Your task to perform on an android device: toggle priority inbox in the gmail app Image 0: 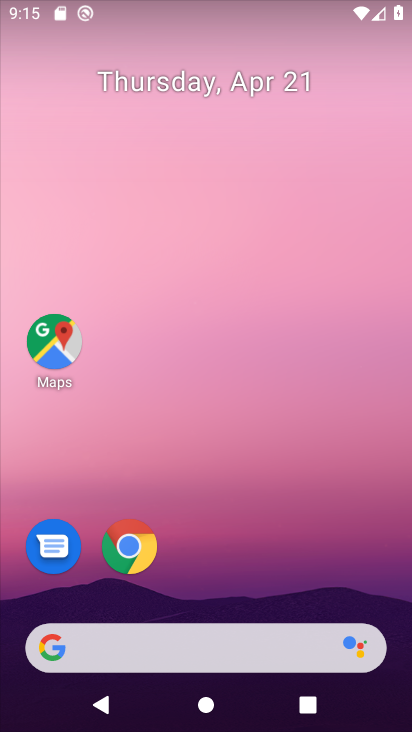
Step 0: drag from (350, 566) to (353, 145)
Your task to perform on an android device: toggle priority inbox in the gmail app Image 1: 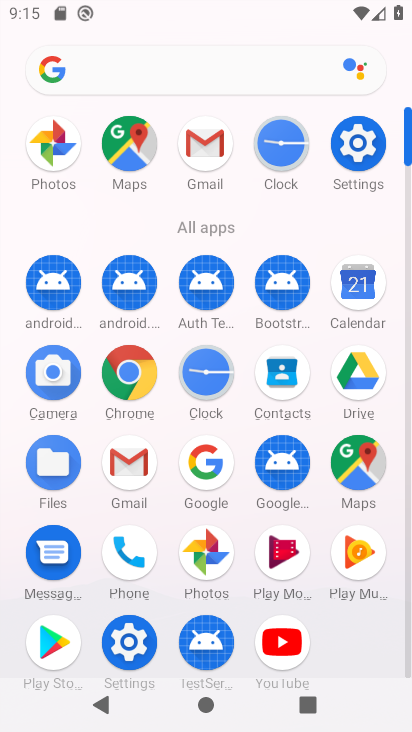
Step 1: click (136, 468)
Your task to perform on an android device: toggle priority inbox in the gmail app Image 2: 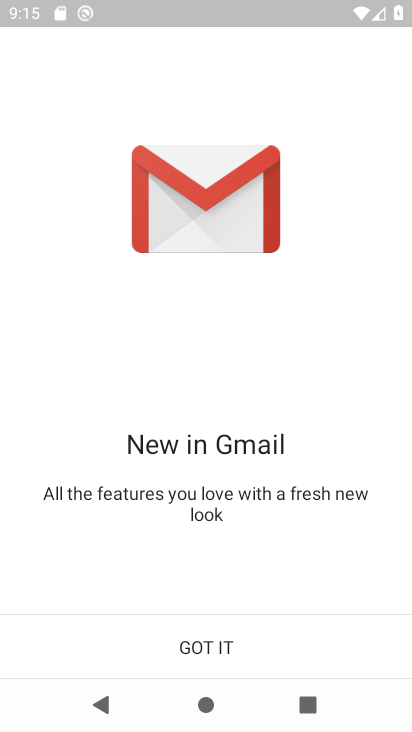
Step 2: click (245, 660)
Your task to perform on an android device: toggle priority inbox in the gmail app Image 3: 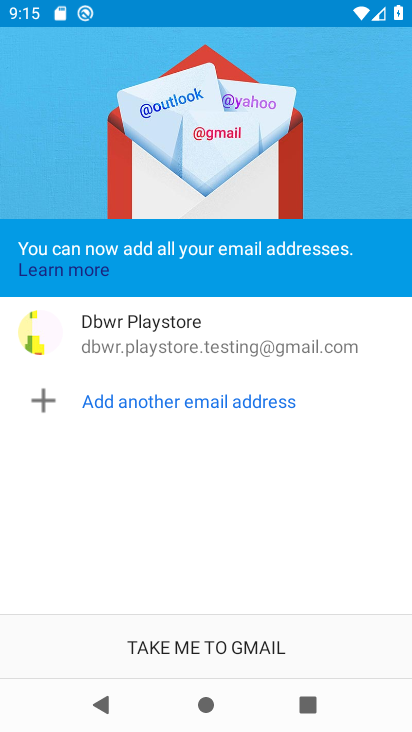
Step 3: click (245, 660)
Your task to perform on an android device: toggle priority inbox in the gmail app Image 4: 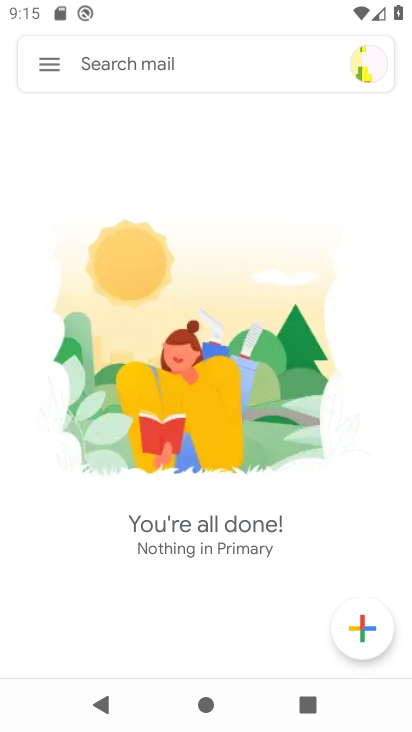
Step 4: click (47, 59)
Your task to perform on an android device: toggle priority inbox in the gmail app Image 5: 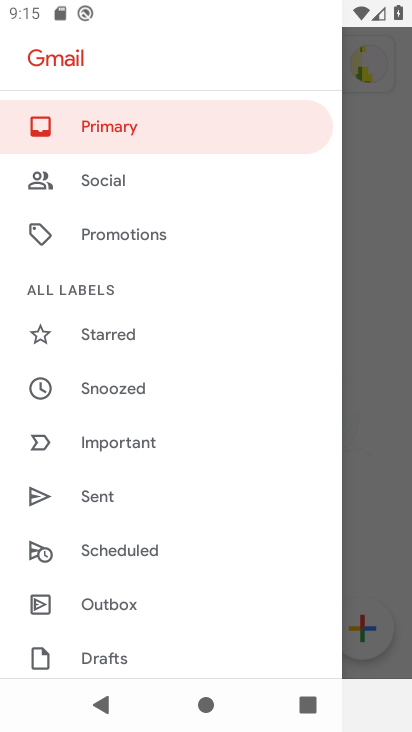
Step 5: drag from (288, 426) to (288, 263)
Your task to perform on an android device: toggle priority inbox in the gmail app Image 6: 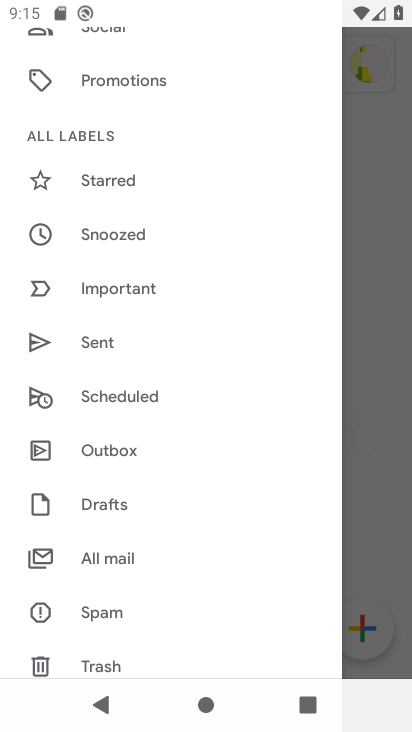
Step 6: drag from (237, 541) to (261, 311)
Your task to perform on an android device: toggle priority inbox in the gmail app Image 7: 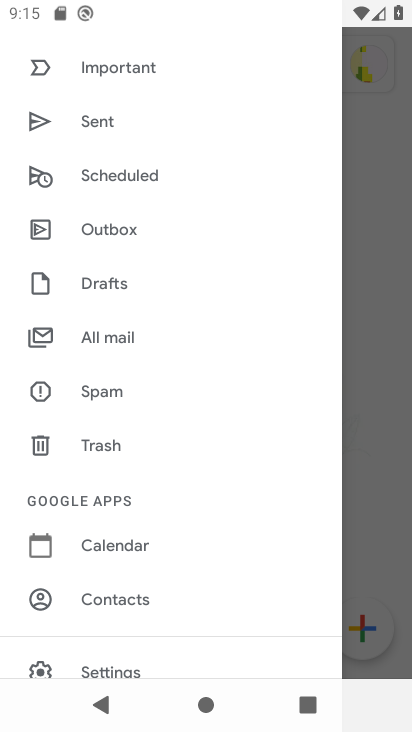
Step 7: drag from (233, 581) to (257, 335)
Your task to perform on an android device: toggle priority inbox in the gmail app Image 8: 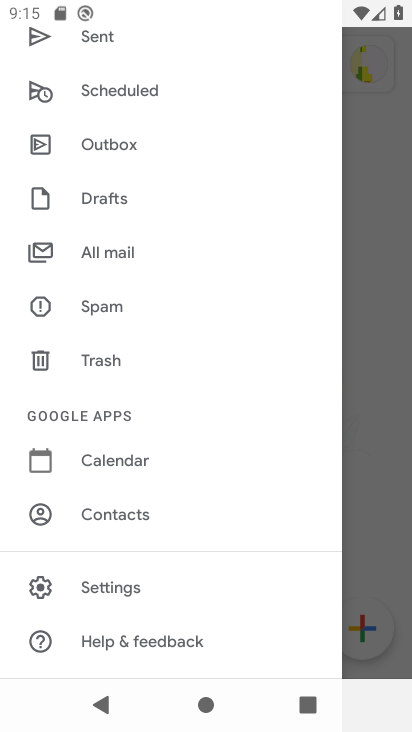
Step 8: click (136, 590)
Your task to perform on an android device: toggle priority inbox in the gmail app Image 9: 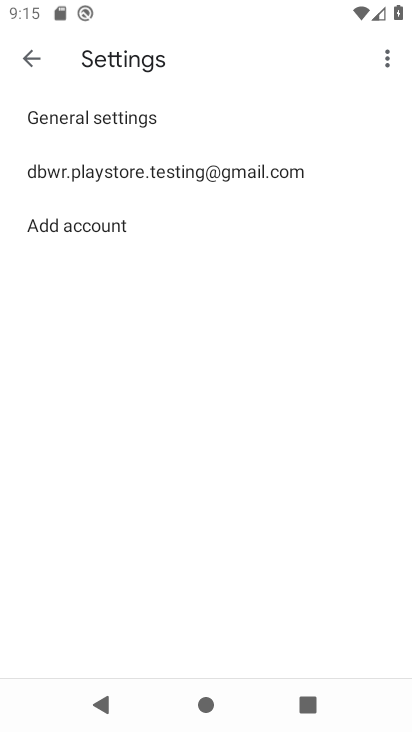
Step 9: click (245, 169)
Your task to perform on an android device: toggle priority inbox in the gmail app Image 10: 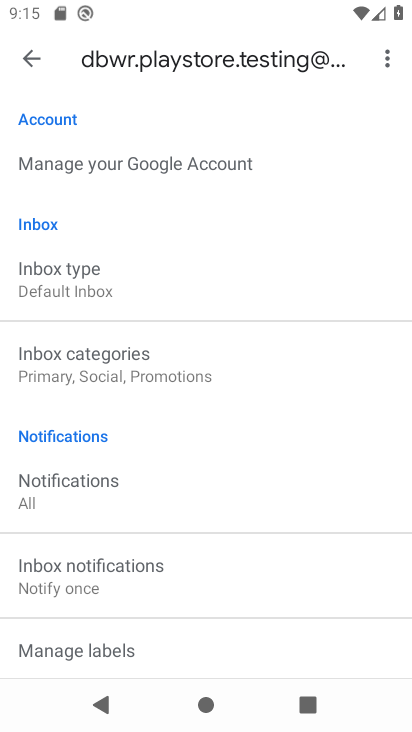
Step 10: click (57, 280)
Your task to perform on an android device: toggle priority inbox in the gmail app Image 11: 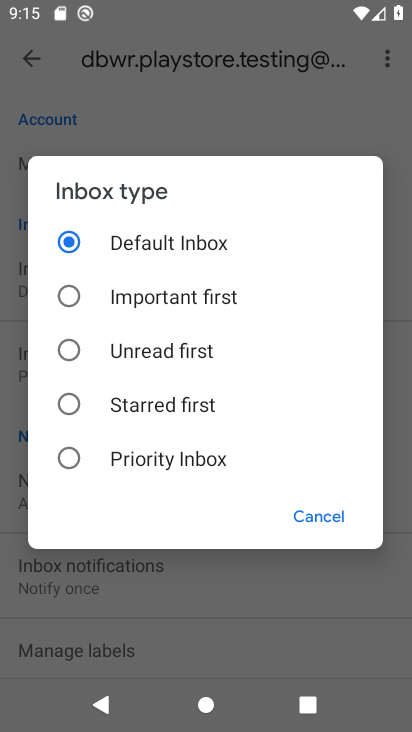
Step 11: click (75, 458)
Your task to perform on an android device: toggle priority inbox in the gmail app Image 12: 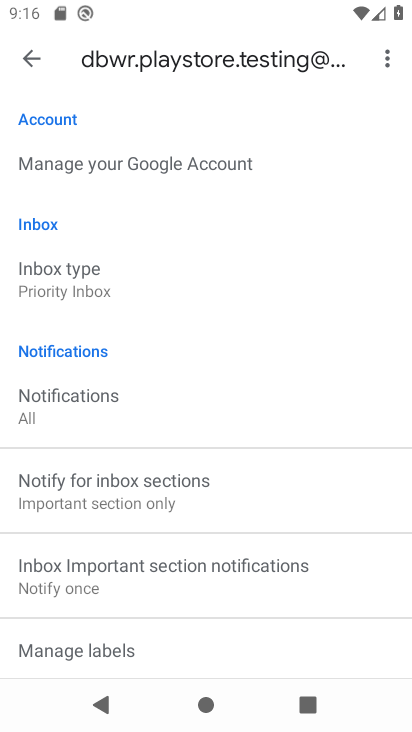
Step 12: task complete